Your task to perform on an android device: Go to Google Image 0: 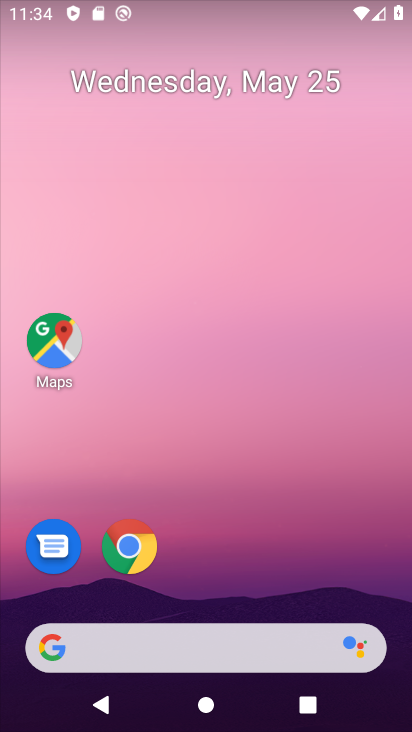
Step 0: drag from (129, 191) to (141, 18)
Your task to perform on an android device: Go to Google Image 1: 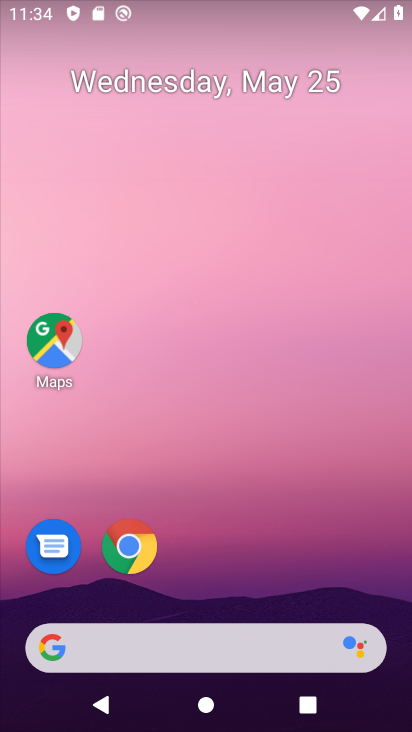
Step 1: drag from (248, 553) to (237, 1)
Your task to perform on an android device: Go to Google Image 2: 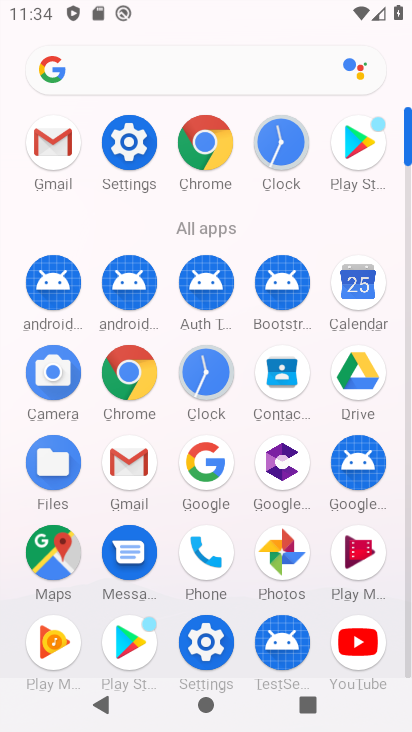
Step 2: click (204, 456)
Your task to perform on an android device: Go to Google Image 3: 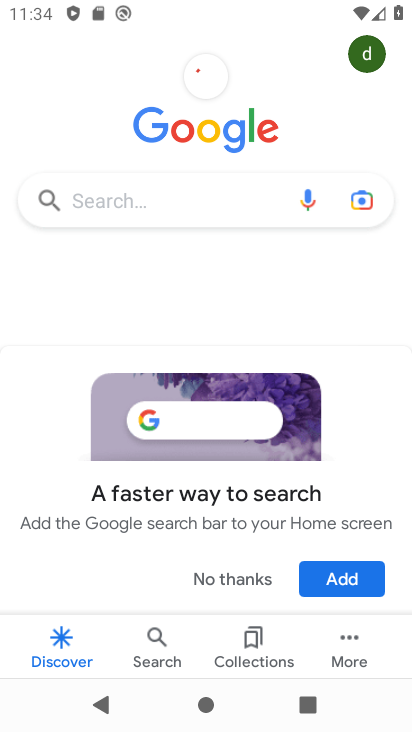
Step 3: task complete